Your task to perform on an android device: Add panasonic triple a to the cart on walmart Image 0: 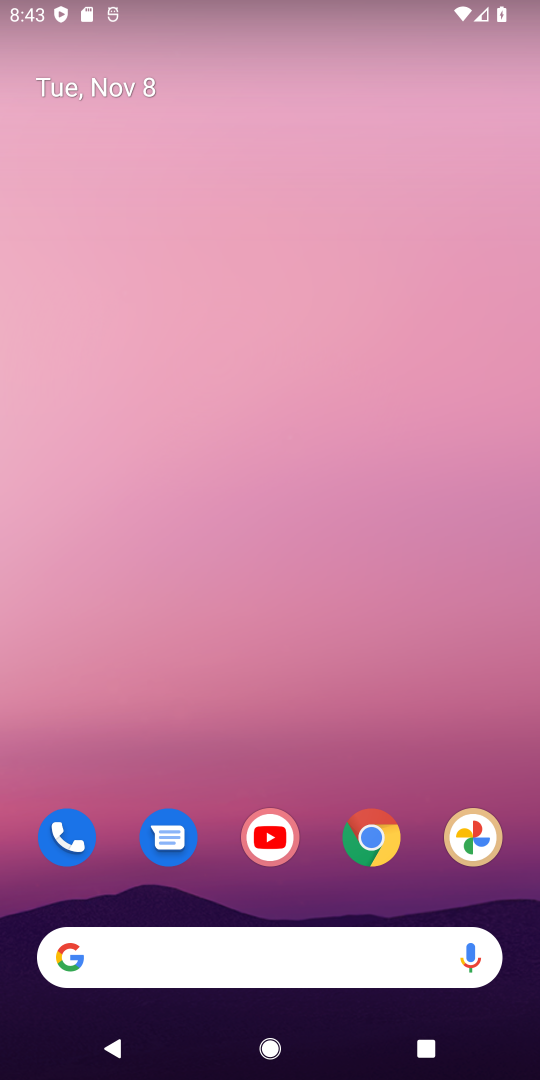
Step 0: click (365, 838)
Your task to perform on an android device: Add panasonic triple a to the cart on walmart Image 1: 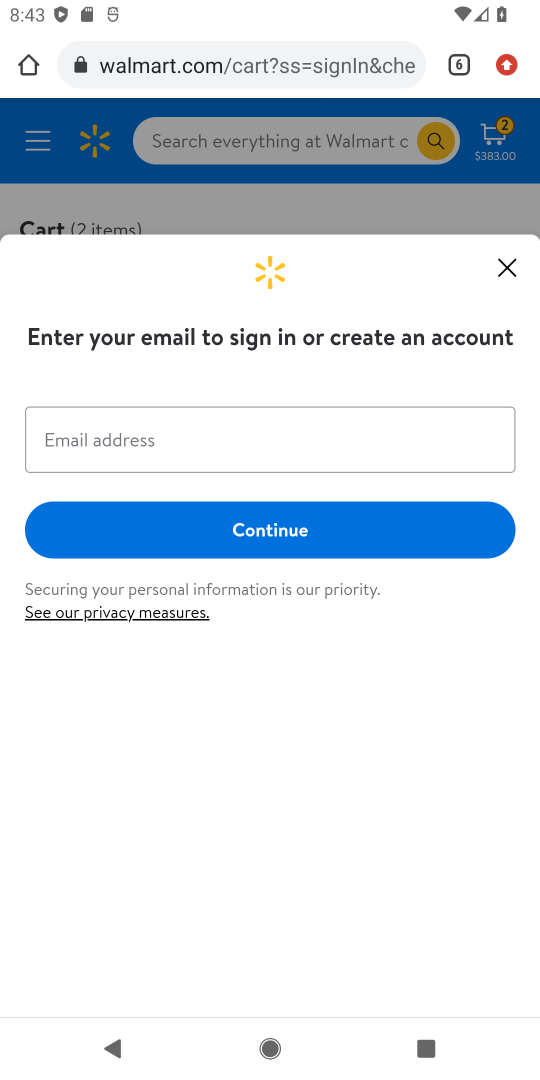
Step 1: click (504, 258)
Your task to perform on an android device: Add panasonic triple a to the cart on walmart Image 2: 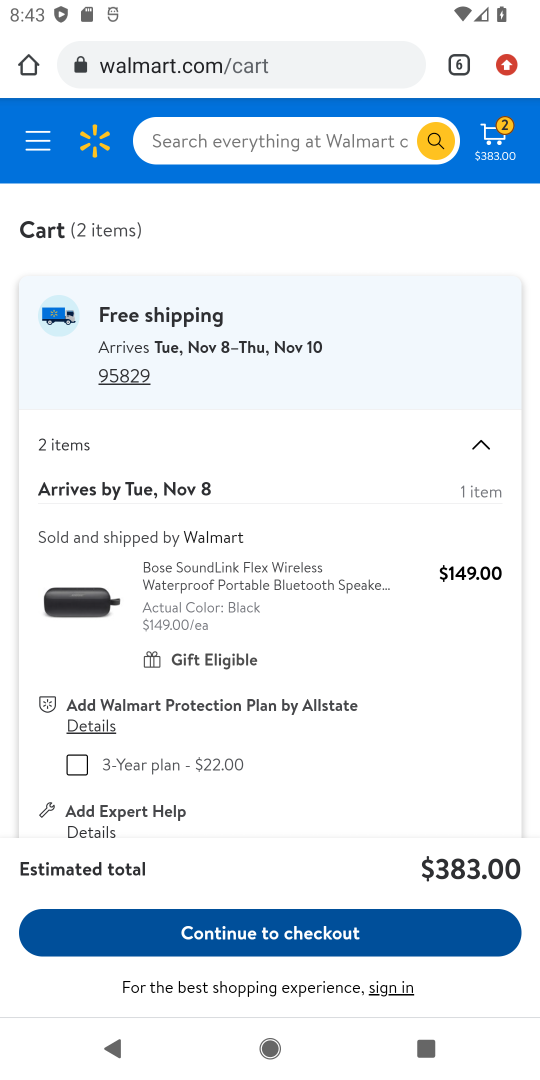
Step 2: click (264, 130)
Your task to perform on an android device: Add panasonic triple a to the cart on walmart Image 3: 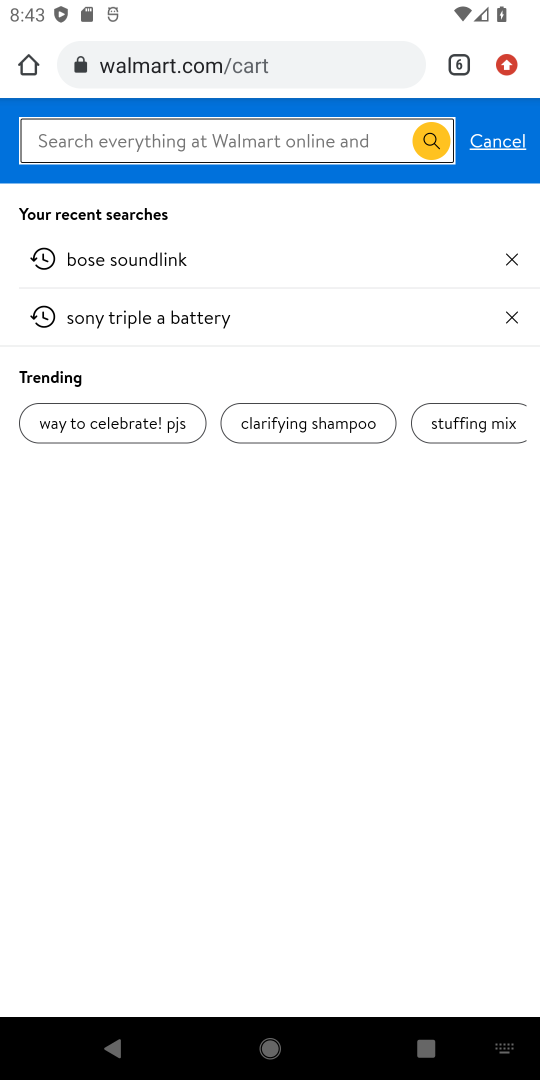
Step 3: type "panasonic triple a"
Your task to perform on an android device: Add panasonic triple a to the cart on walmart Image 4: 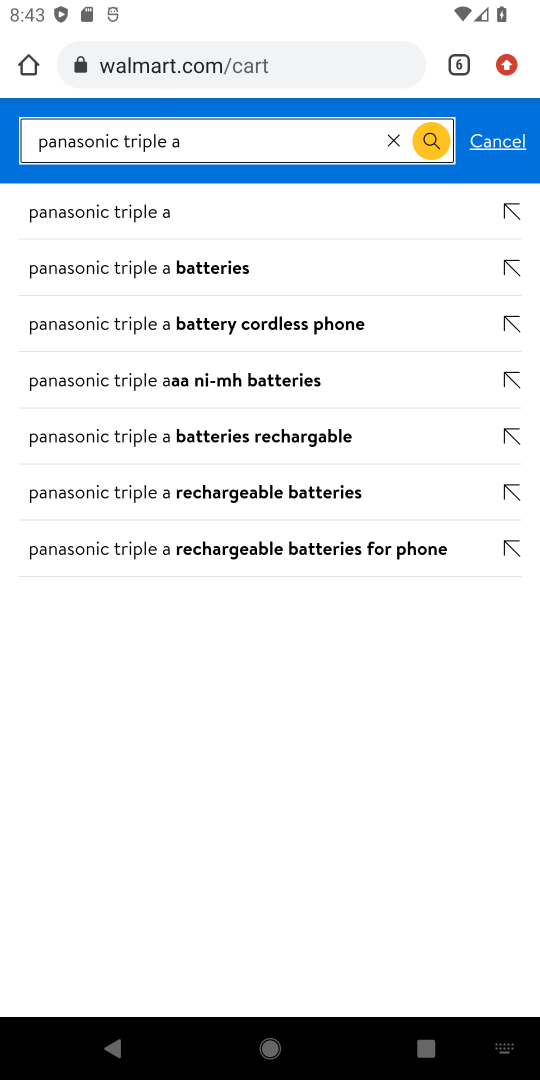
Step 4: click (165, 276)
Your task to perform on an android device: Add panasonic triple a to the cart on walmart Image 5: 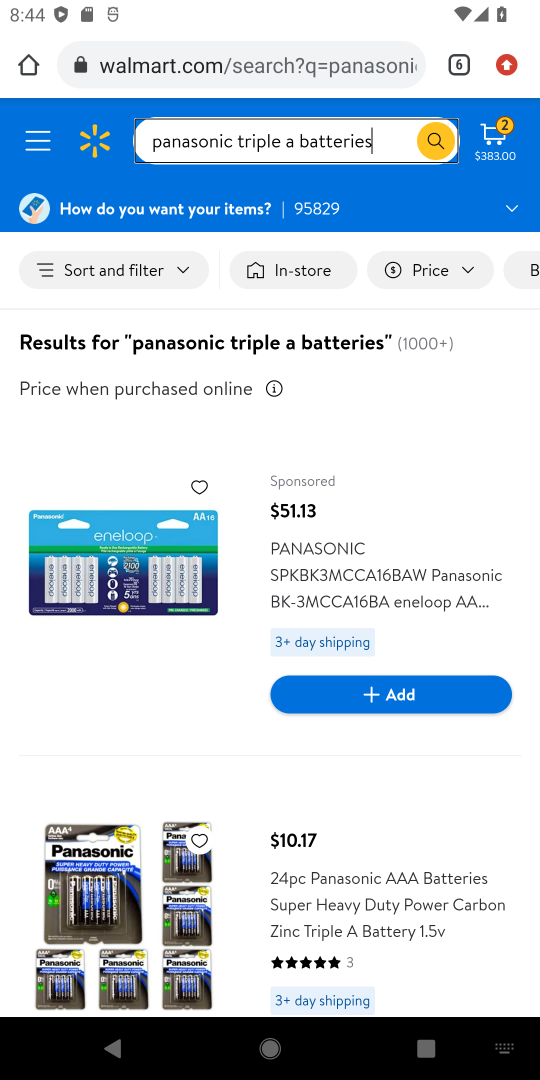
Step 5: drag from (412, 822) to (414, 425)
Your task to perform on an android device: Add panasonic triple a to the cart on walmart Image 6: 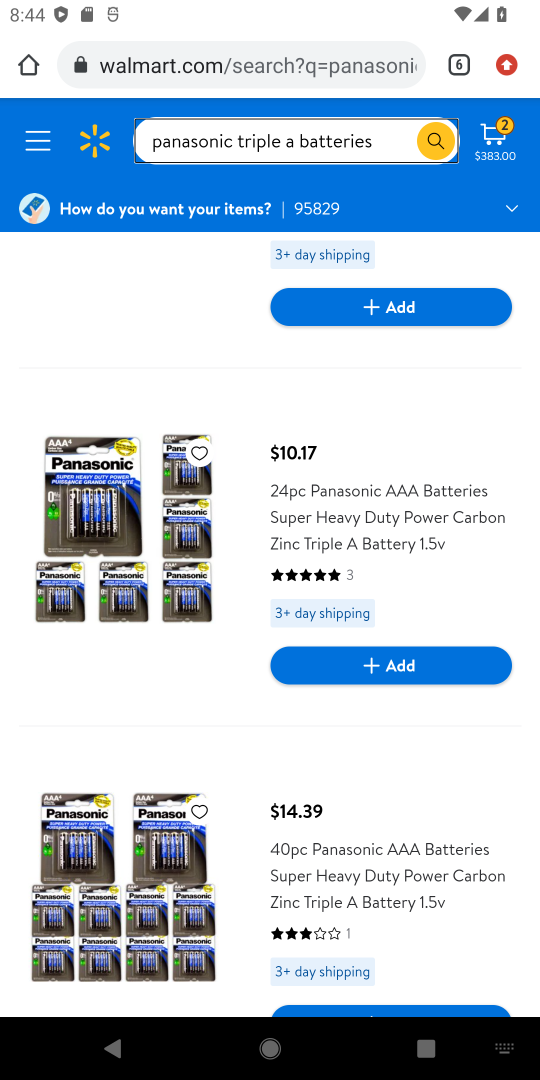
Step 6: click (376, 666)
Your task to perform on an android device: Add panasonic triple a to the cart on walmart Image 7: 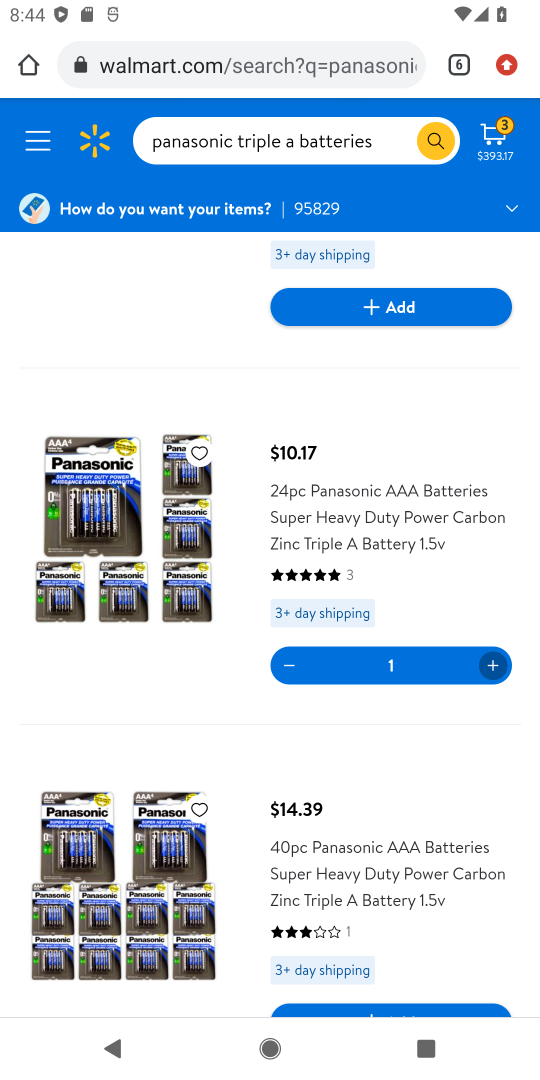
Step 7: task complete